Your task to perform on an android device: toggle location history Image 0: 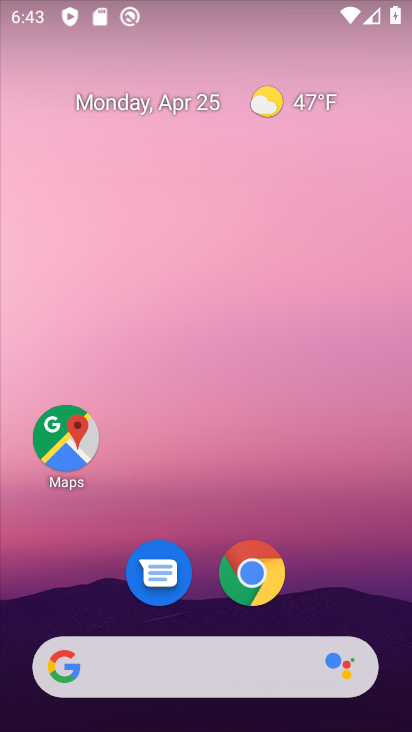
Step 0: drag from (330, 573) to (229, 15)
Your task to perform on an android device: toggle location history Image 1: 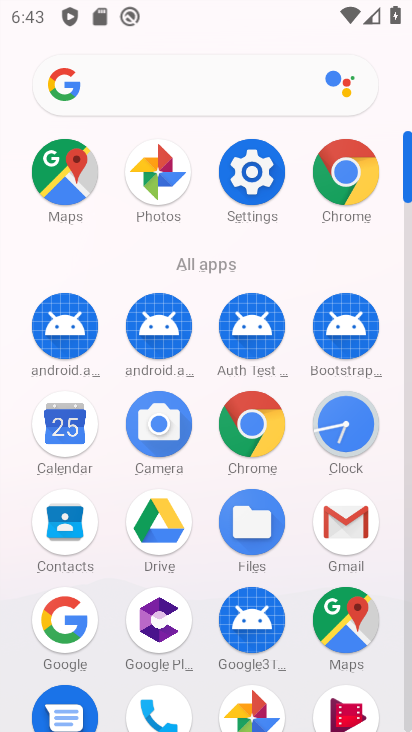
Step 1: click (247, 155)
Your task to perform on an android device: toggle location history Image 2: 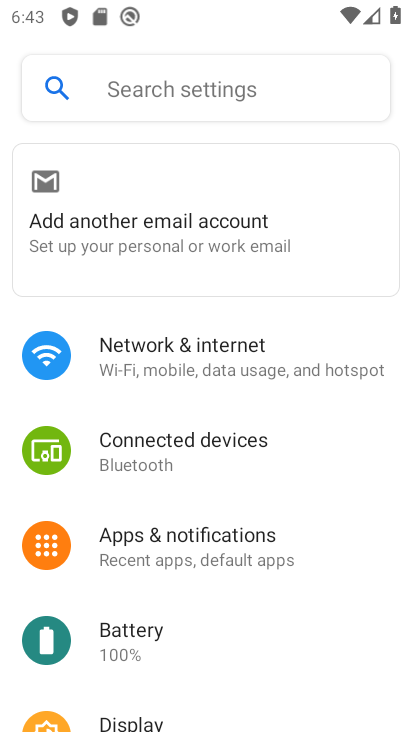
Step 2: drag from (201, 633) to (199, 104)
Your task to perform on an android device: toggle location history Image 3: 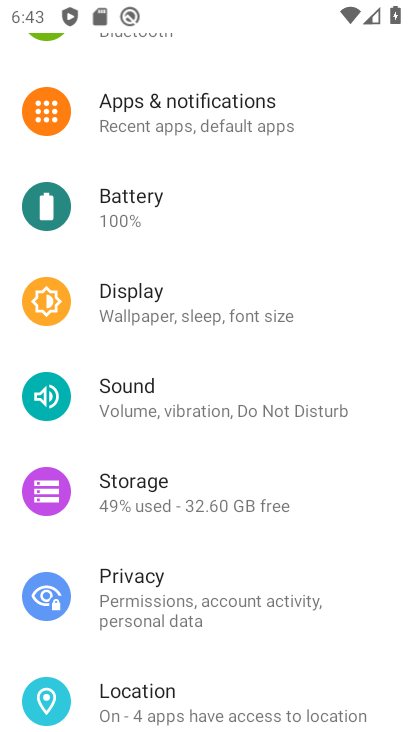
Step 3: click (167, 692)
Your task to perform on an android device: toggle location history Image 4: 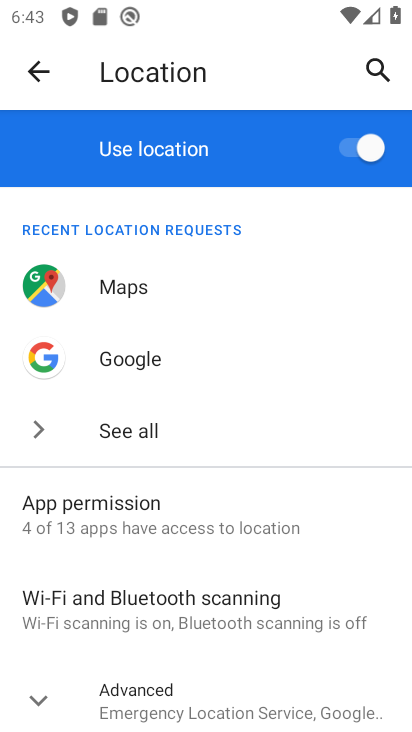
Step 4: click (69, 691)
Your task to perform on an android device: toggle location history Image 5: 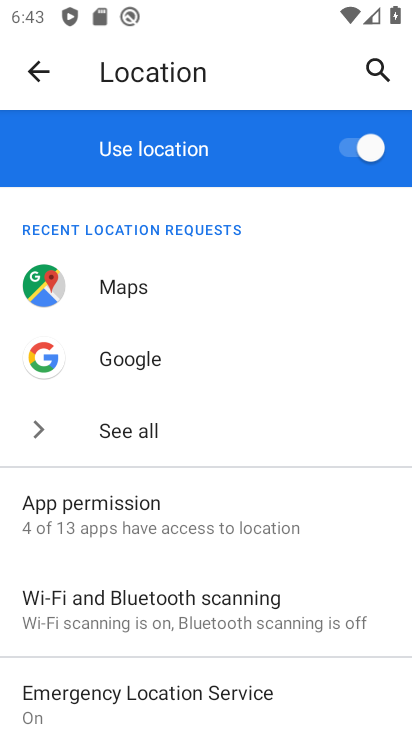
Step 5: drag from (276, 645) to (256, 276)
Your task to perform on an android device: toggle location history Image 6: 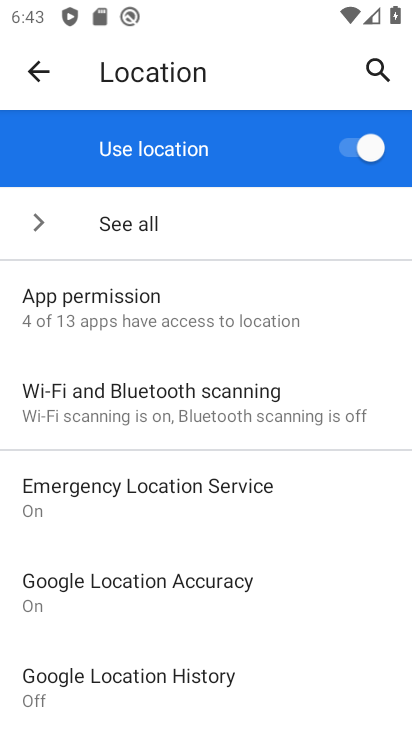
Step 6: click (182, 672)
Your task to perform on an android device: toggle location history Image 7: 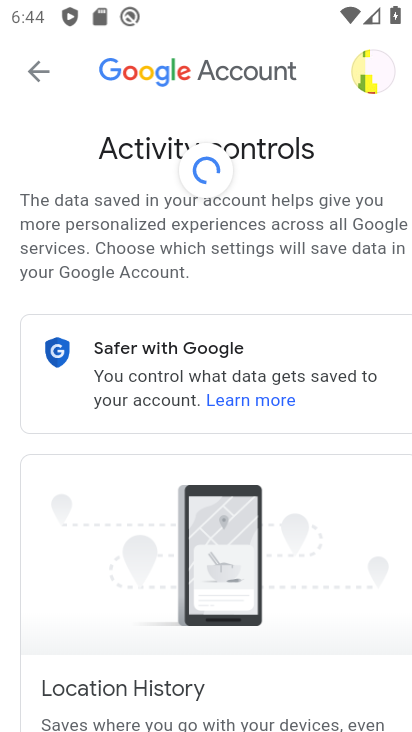
Step 7: drag from (272, 589) to (218, 107)
Your task to perform on an android device: toggle location history Image 8: 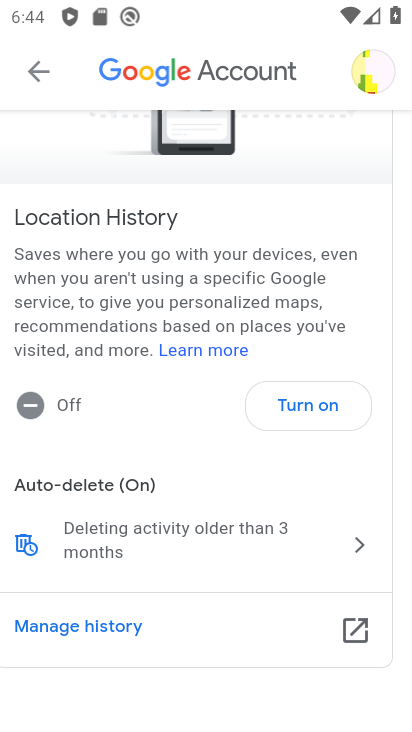
Step 8: click (312, 388)
Your task to perform on an android device: toggle location history Image 9: 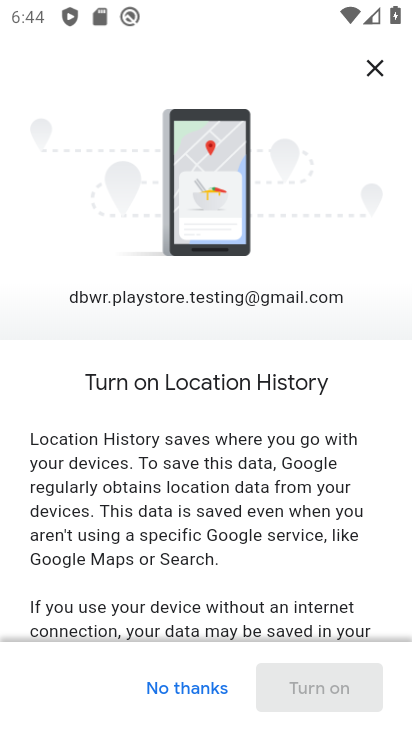
Step 9: drag from (295, 568) to (200, 79)
Your task to perform on an android device: toggle location history Image 10: 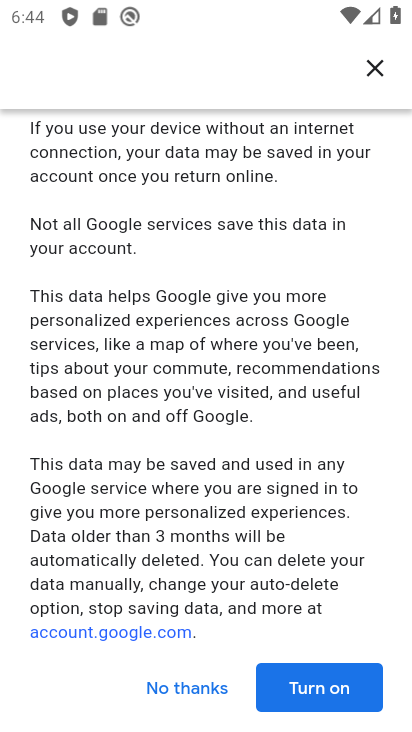
Step 10: click (316, 678)
Your task to perform on an android device: toggle location history Image 11: 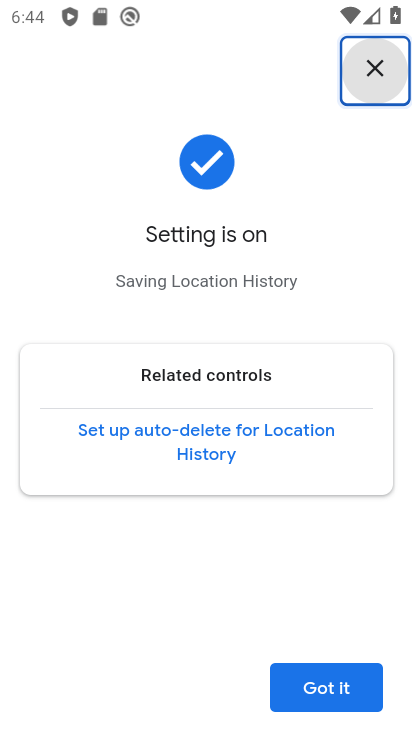
Step 11: click (335, 690)
Your task to perform on an android device: toggle location history Image 12: 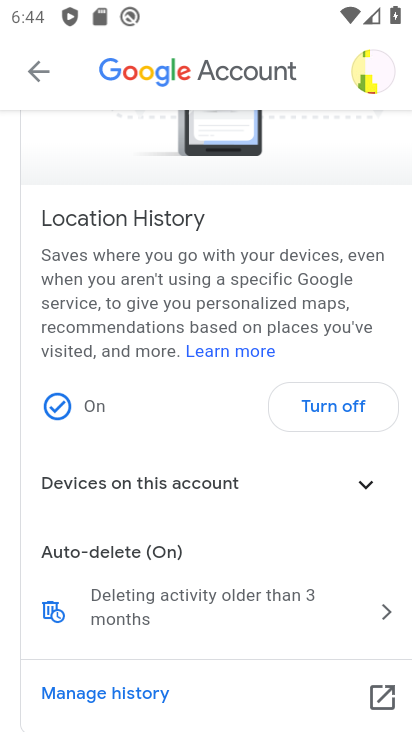
Step 12: task complete